Your task to perform on an android device: Show me popular videos on Youtube Image 0: 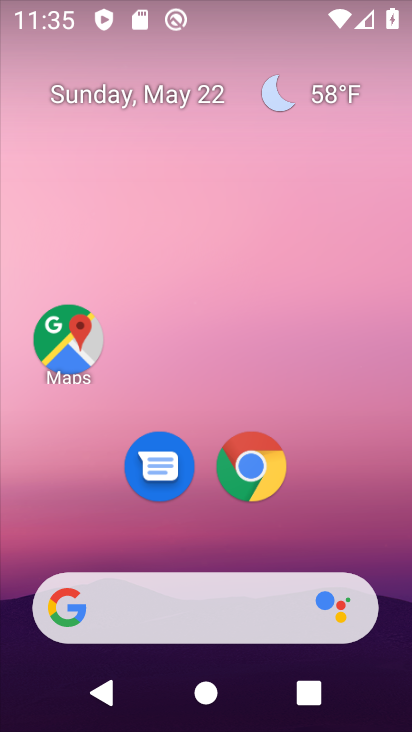
Step 0: drag from (216, 547) to (210, 91)
Your task to perform on an android device: Show me popular videos on Youtube Image 1: 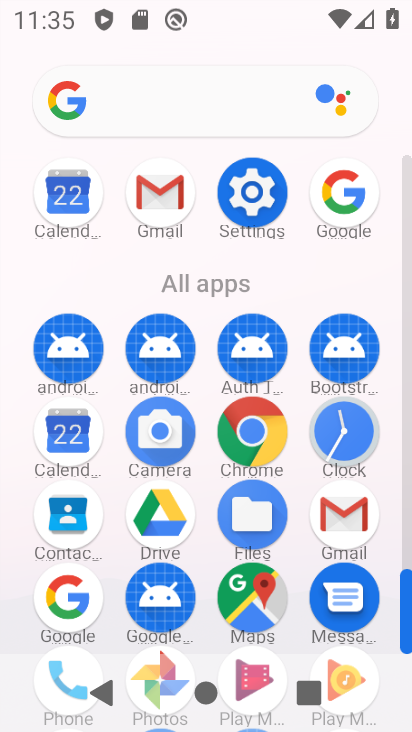
Step 1: drag from (226, 506) to (229, 72)
Your task to perform on an android device: Show me popular videos on Youtube Image 2: 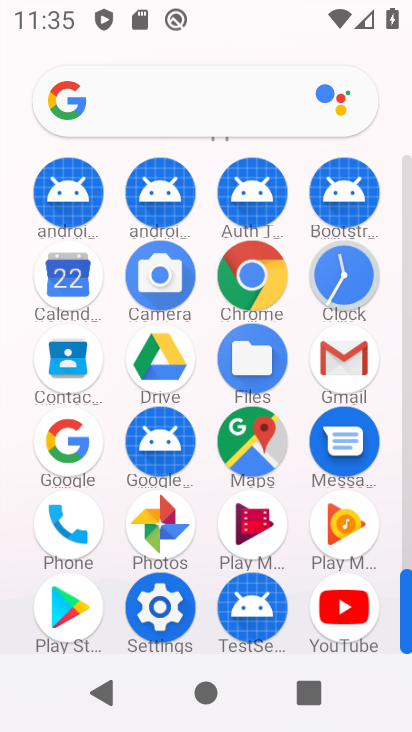
Step 2: click (344, 605)
Your task to perform on an android device: Show me popular videos on Youtube Image 3: 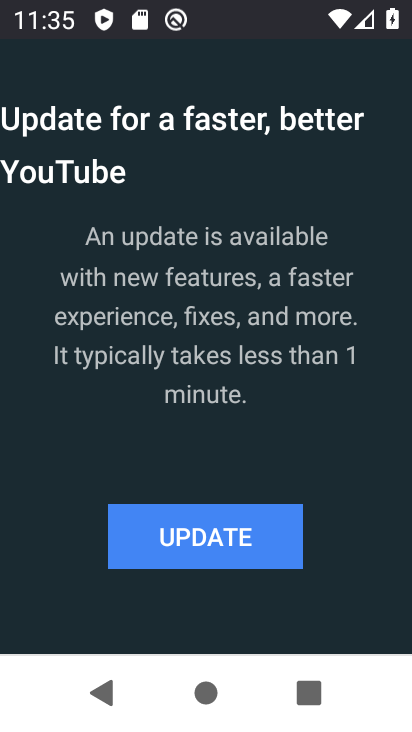
Step 3: click (201, 535)
Your task to perform on an android device: Show me popular videos on Youtube Image 4: 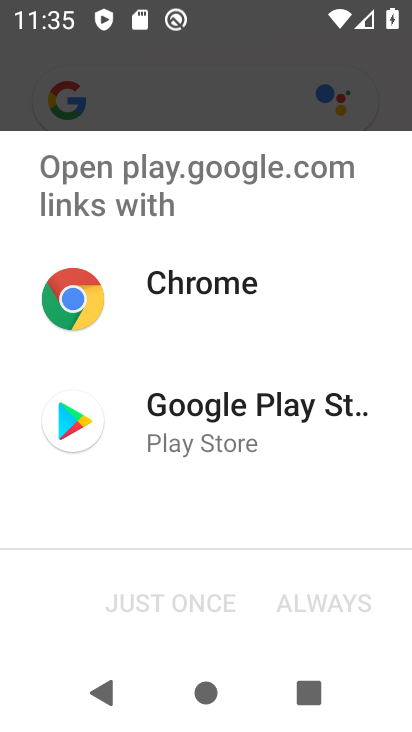
Step 4: click (190, 412)
Your task to perform on an android device: Show me popular videos on Youtube Image 5: 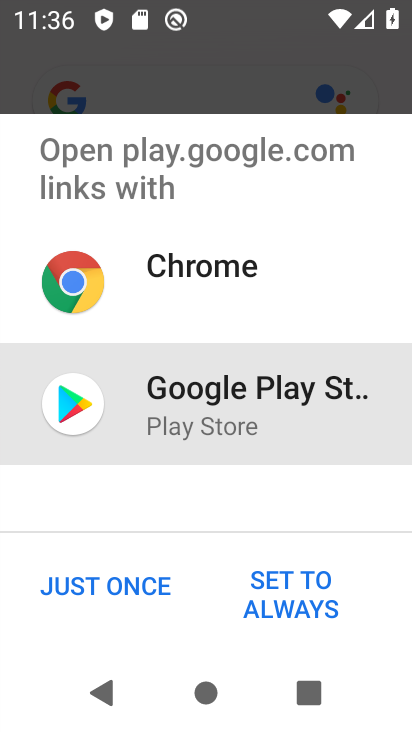
Step 5: click (122, 589)
Your task to perform on an android device: Show me popular videos on Youtube Image 6: 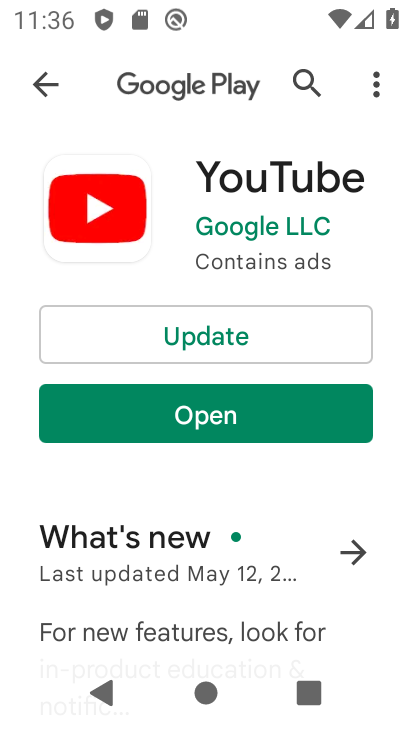
Step 6: click (181, 340)
Your task to perform on an android device: Show me popular videos on Youtube Image 7: 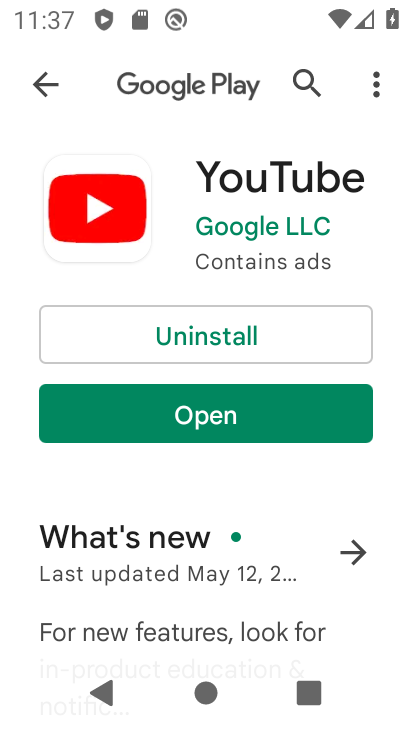
Step 7: click (209, 414)
Your task to perform on an android device: Show me popular videos on Youtube Image 8: 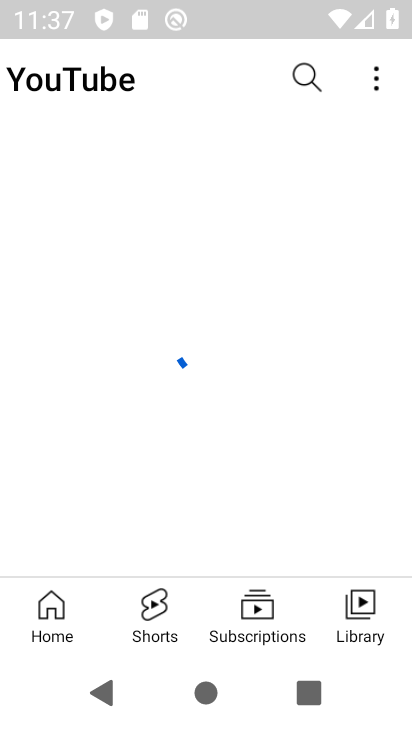
Step 8: click (47, 594)
Your task to perform on an android device: Show me popular videos on Youtube Image 9: 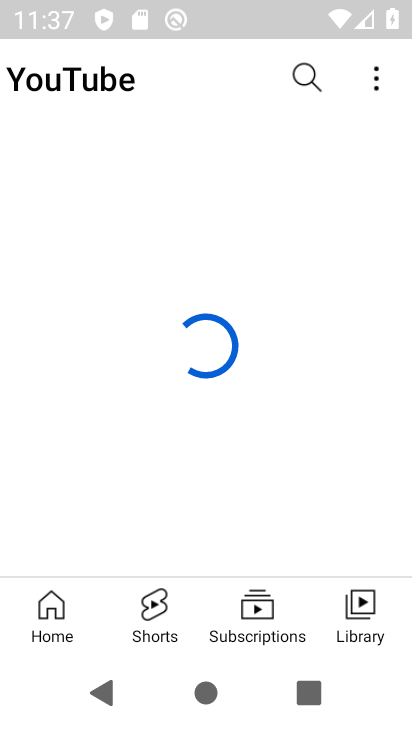
Step 9: click (55, 615)
Your task to perform on an android device: Show me popular videos on Youtube Image 10: 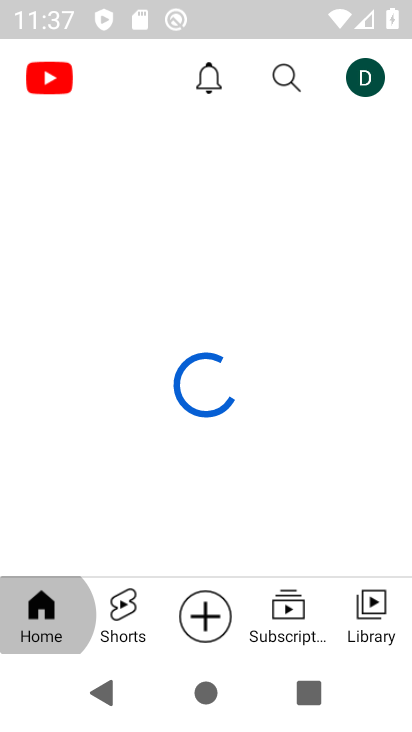
Step 10: click (55, 618)
Your task to perform on an android device: Show me popular videos on Youtube Image 11: 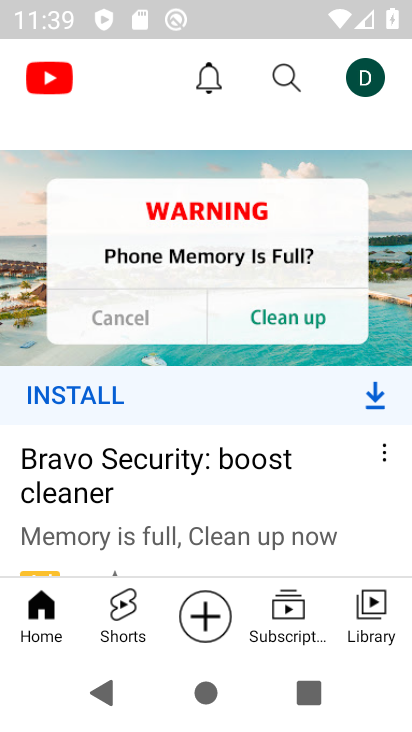
Step 11: task complete